Your task to perform on an android device: What is the news today? Image 0: 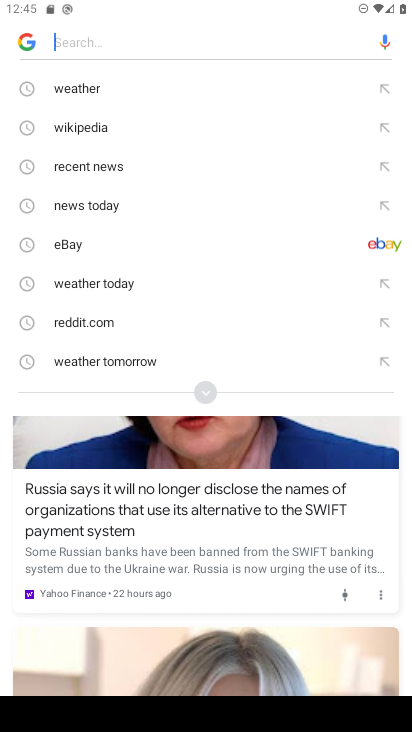
Step 0: press home button
Your task to perform on an android device: What is the news today? Image 1: 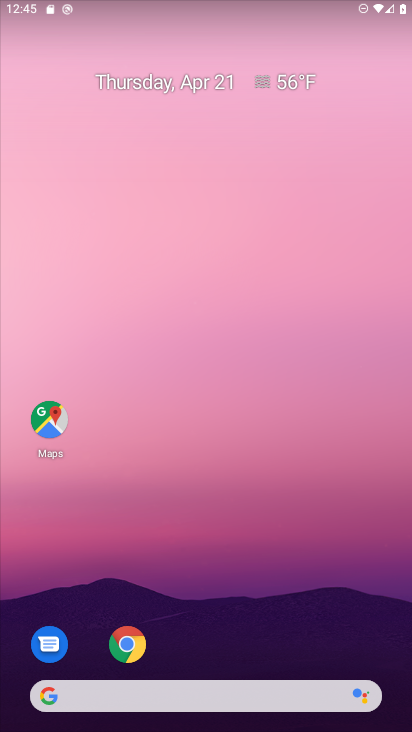
Step 1: click (129, 651)
Your task to perform on an android device: What is the news today? Image 2: 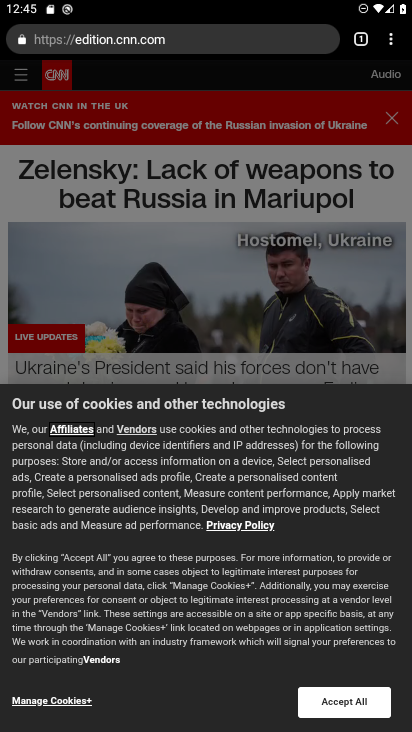
Step 2: click (139, 48)
Your task to perform on an android device: What is the news today? Image 3: 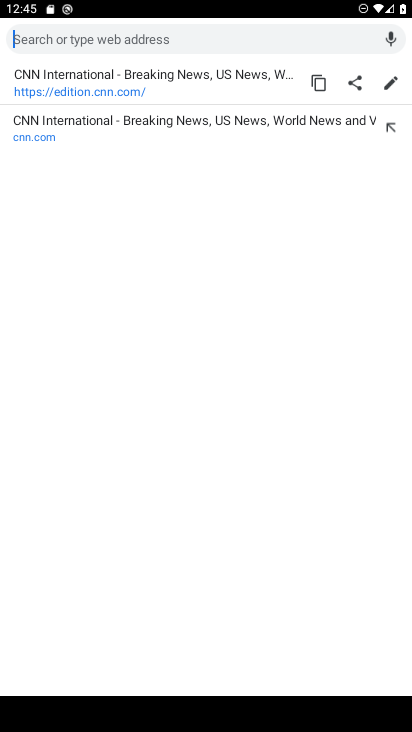
Step 3: type "news"
Your task to perform on an android device: What is the news today? Image 4: 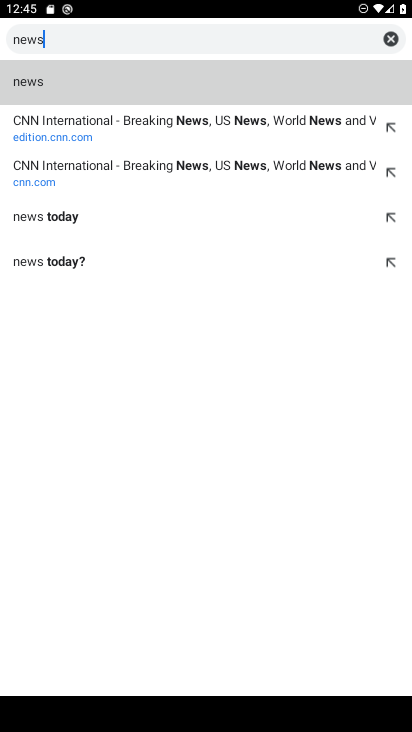
Step 4: click (23, 77)
Your task to perform on an android device: What is the news today? Image 5: 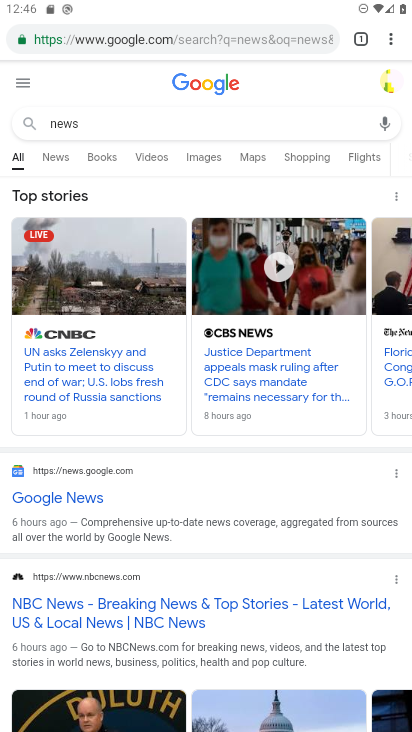
Step 5: task complete